Your task to perform on an android device: turn off javascript in the chrome app Image 0: 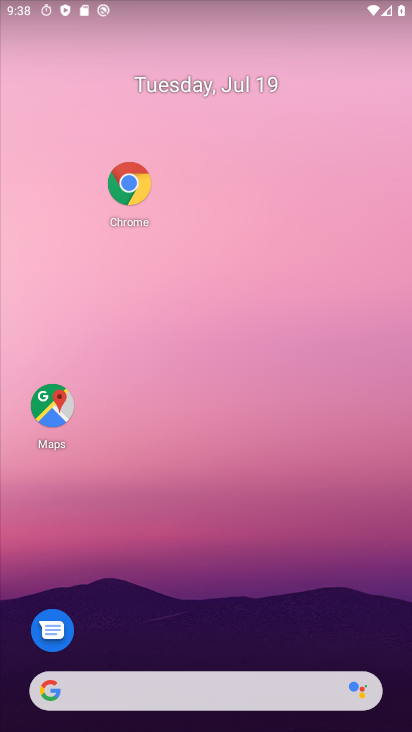
Step 0: click (123, 182)
Your task to perform on an android device: turn off javascript in the chrome app Image 1: 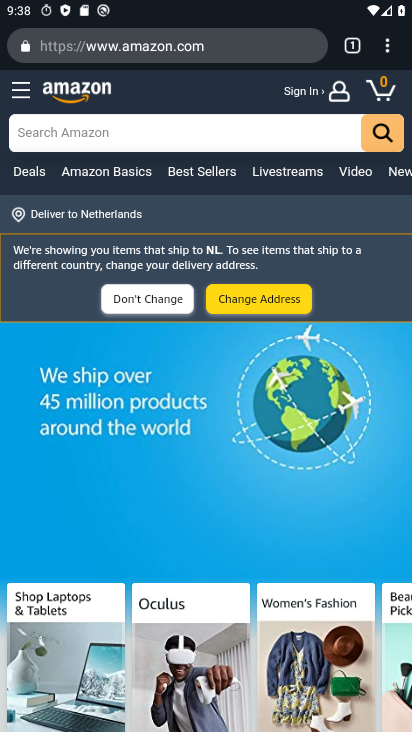
Step 1: click (382, 43)
Your task to perform on an android device: turn off javascript in the chrome app Image 2: 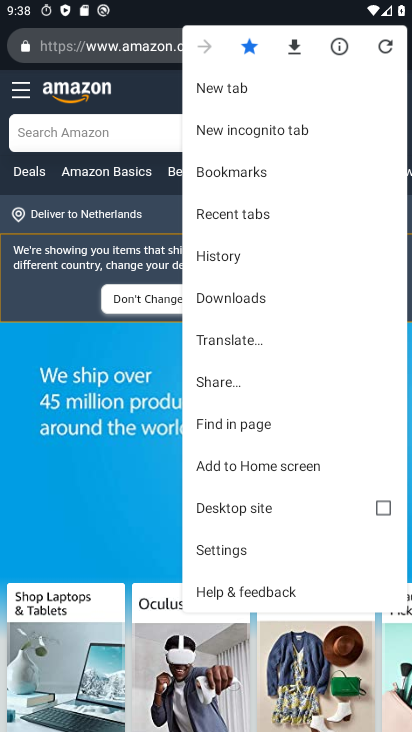
Step 2: click (232, 550)
Your task to perform on an android device: turn off javascript in the chrome app Image 3: 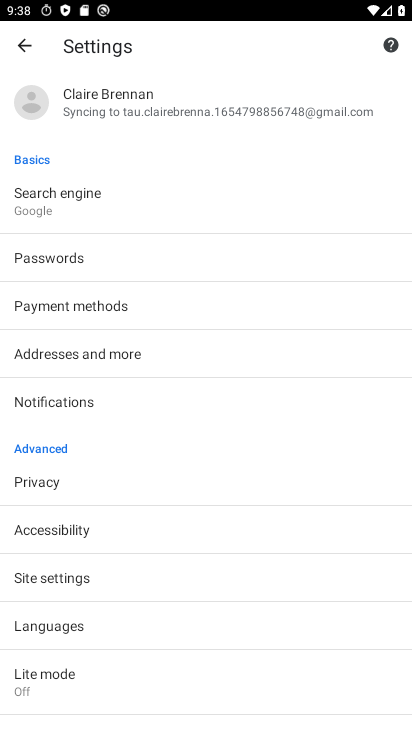
Step 3: click (132, 578)
Your task to perform on an android device: turn off javascript in the chrome app Image 4: 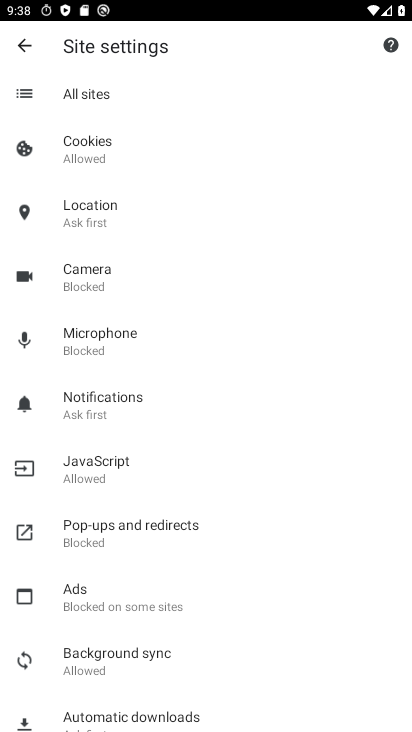
Step 4: click (84, 475)
Your task to perform on an android device: turn off javascript in the chrome app Image 5: 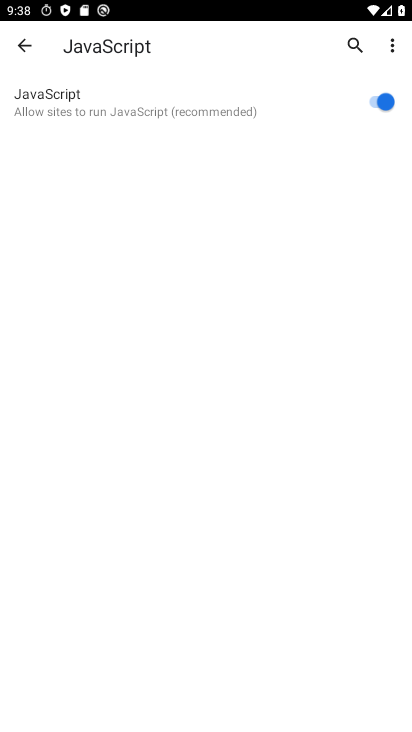
Step 5: click (382, 103)
Your task to perform on an android device: turn off javascript in the chrome app Image 6: 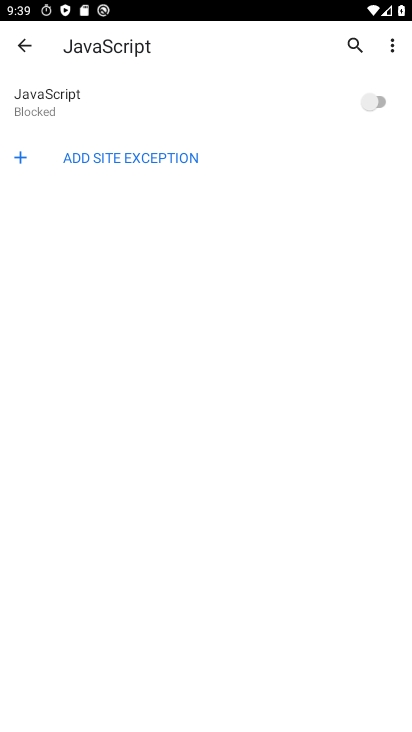
Step 6: task complete